Your task to perform on an android device: Go to ESPN.com Image 0: 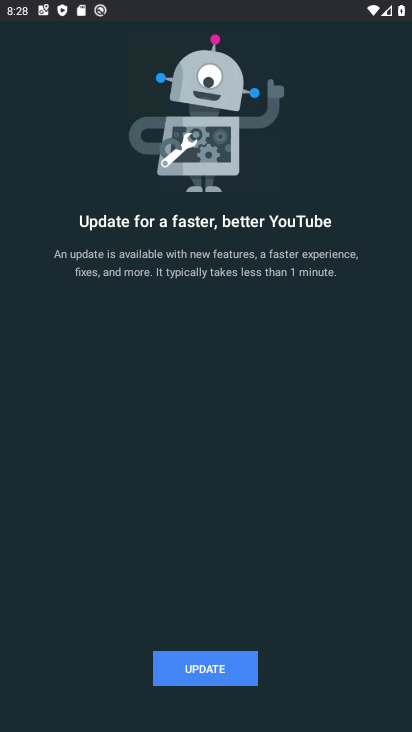
Step 0: press back button
Your task to perform on an android device: Go to ESPN.com Image 1: 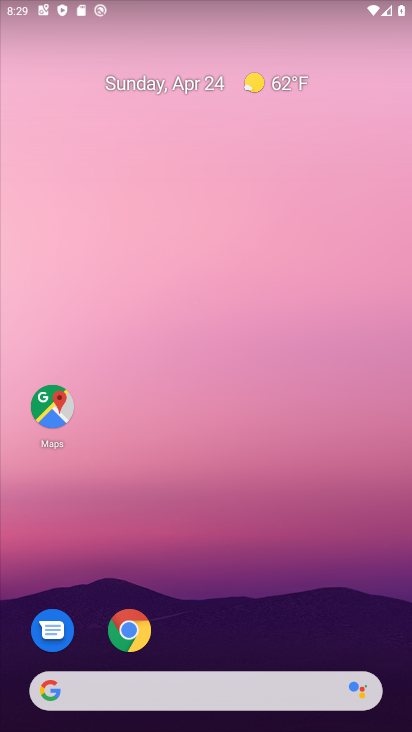
Step 1: drag from (348, 625) to (317, 36)
Your task to perform on an android device: Go to ESPN.com Image 2: 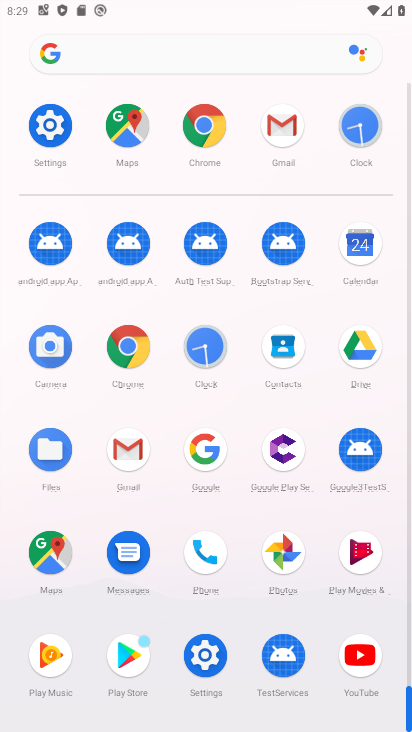
Step 2: click (204, 125)
Your task to perform on an android device: Go to ESPN.com Image 3: 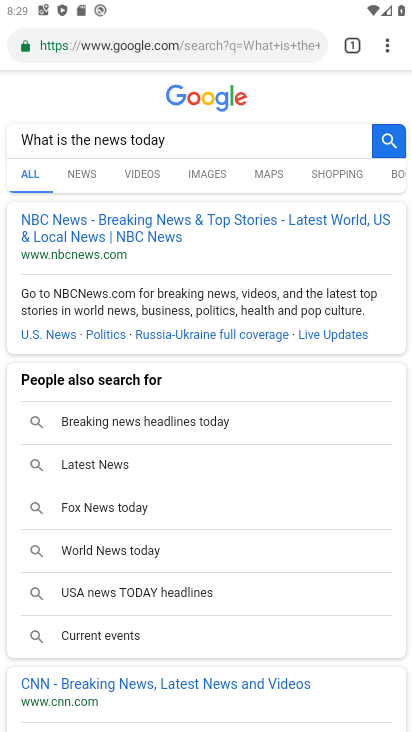
Step 3: click (204, 39)
Your task to perform on an android device: Go to ESPN.com Image 4: 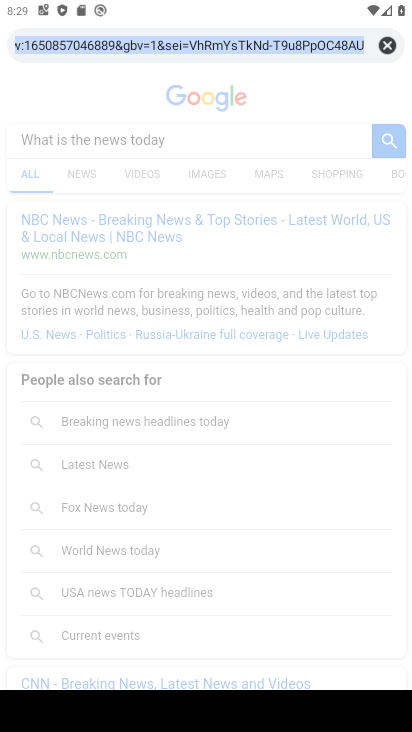
Step 4: click (387, 41)
Your task to perform on an android device: Go to ESPN.com Image 5: 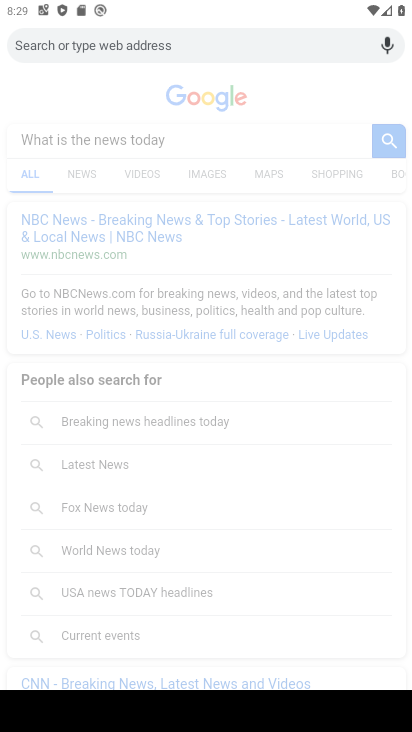
Step 5: type "ESPN.com"
Your task to perform on an android device: Go to ESPN.com Image 6: 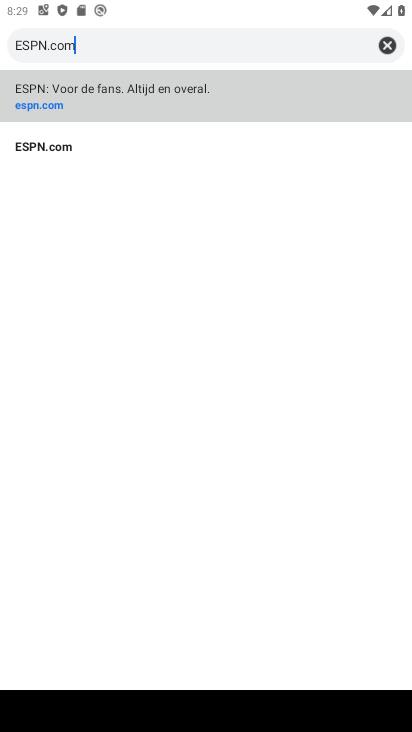
Step 6: type ""
Your task to perform on an android device: Go to ESPN.com Image 7: 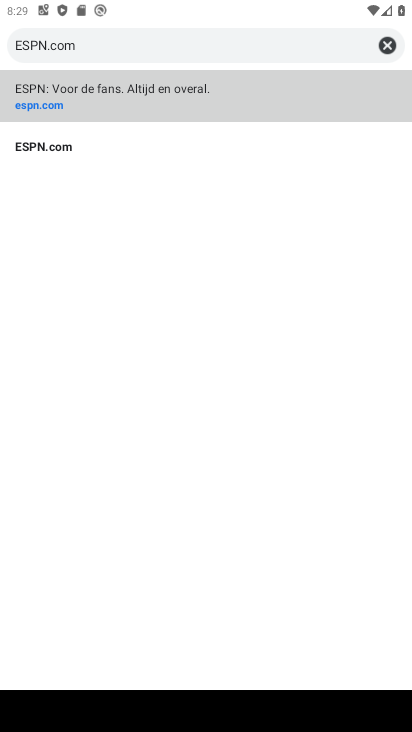
Step 7: click (98, 104)
Your task to perform on an android device: Go to ESPN.com Image 8: 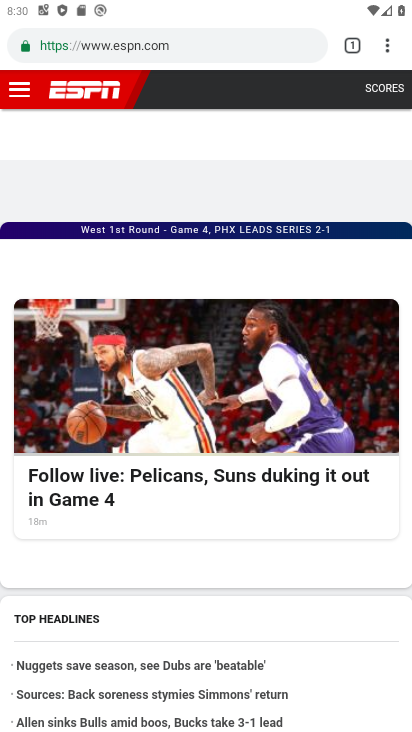
Step 8: task complete